Your task to perform on an android device: turn on sleep mode Image 0: 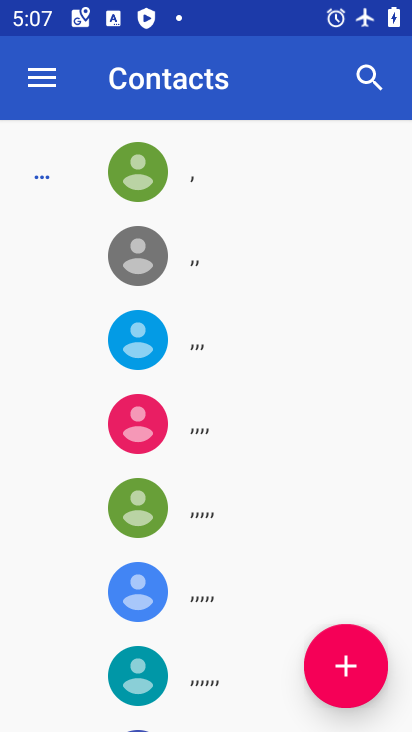
Step 0: press home button
Your task to perform on an android device: turn on sleep mode Image 1: 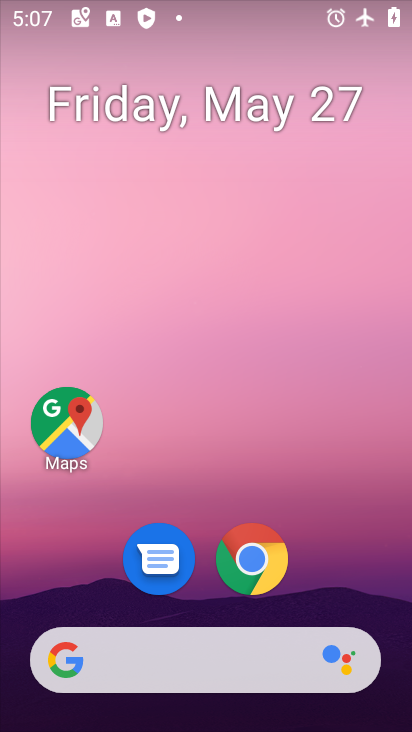
Step 1: drag from (282, 663) to (302, 16)
Your task to perform on an android device: turn on sleep mode Image 2: 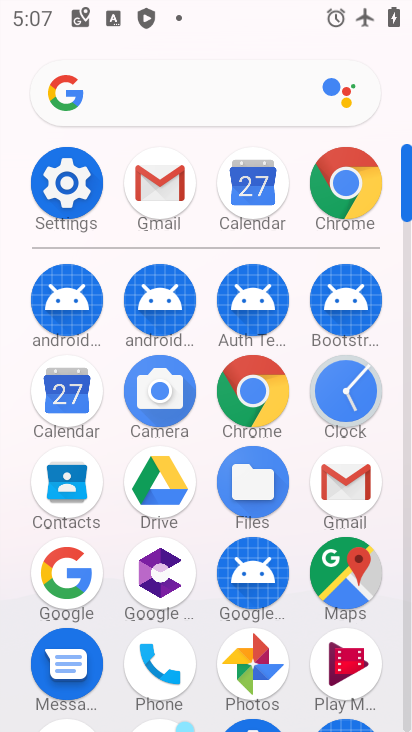
Step 2: click (73, 190)
Your task to perform on an android device: turn on sleep mode Image 3: 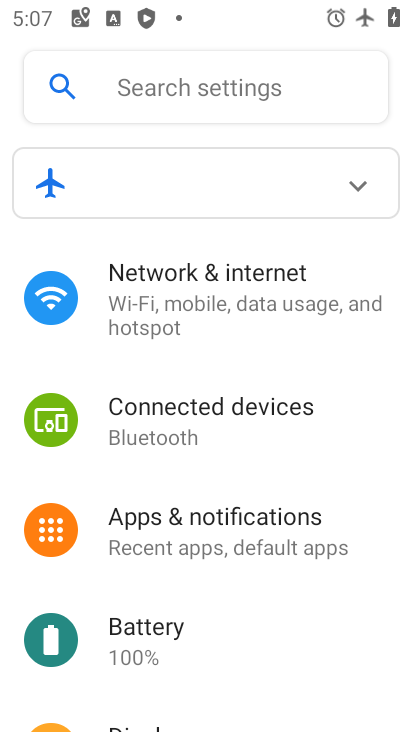
Step 3: drag from (274, 553) to (290, 269)
Your task to perform on an android device: turn on sleep mode Image 4: 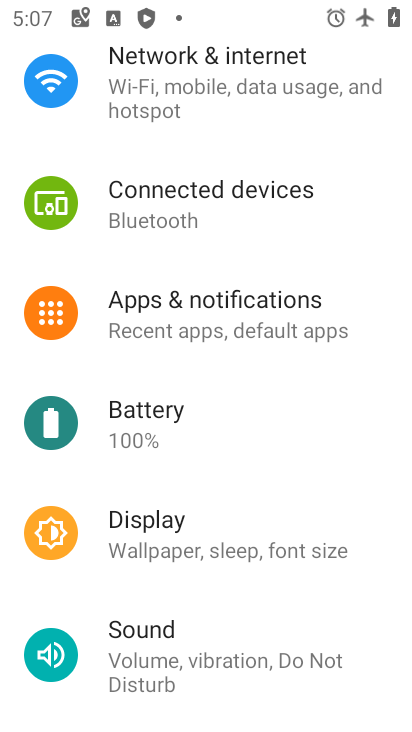
Step 4: click (238, 528)
Your task to perform on an android device: turn on sleep mode Image 5: 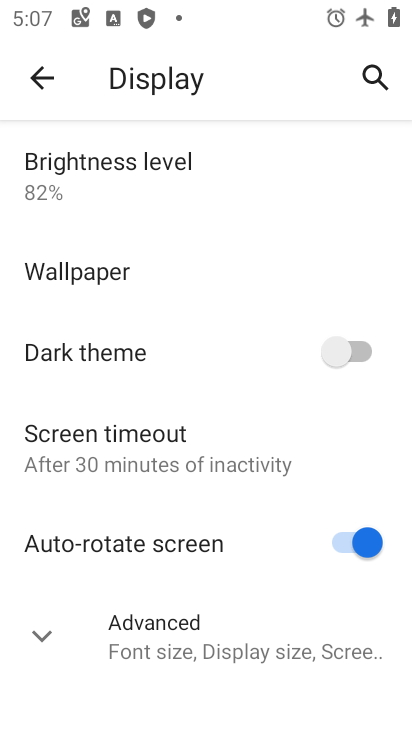
Step 5: task complete